Your task to perform on an android device: What's on my calendar today? Image 0: 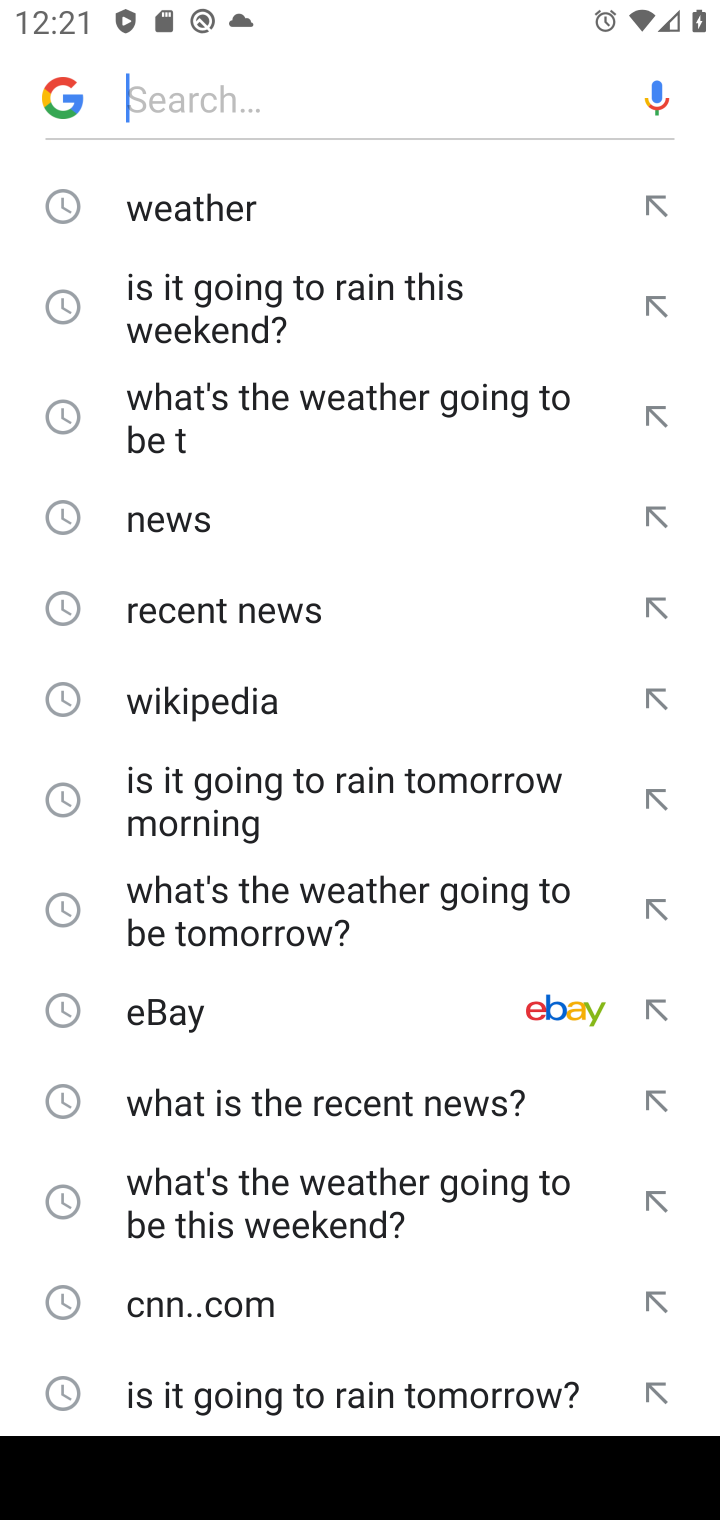
Step 0: press home button
Your task to perform on an android device: What's on my calendar today? Image 1: 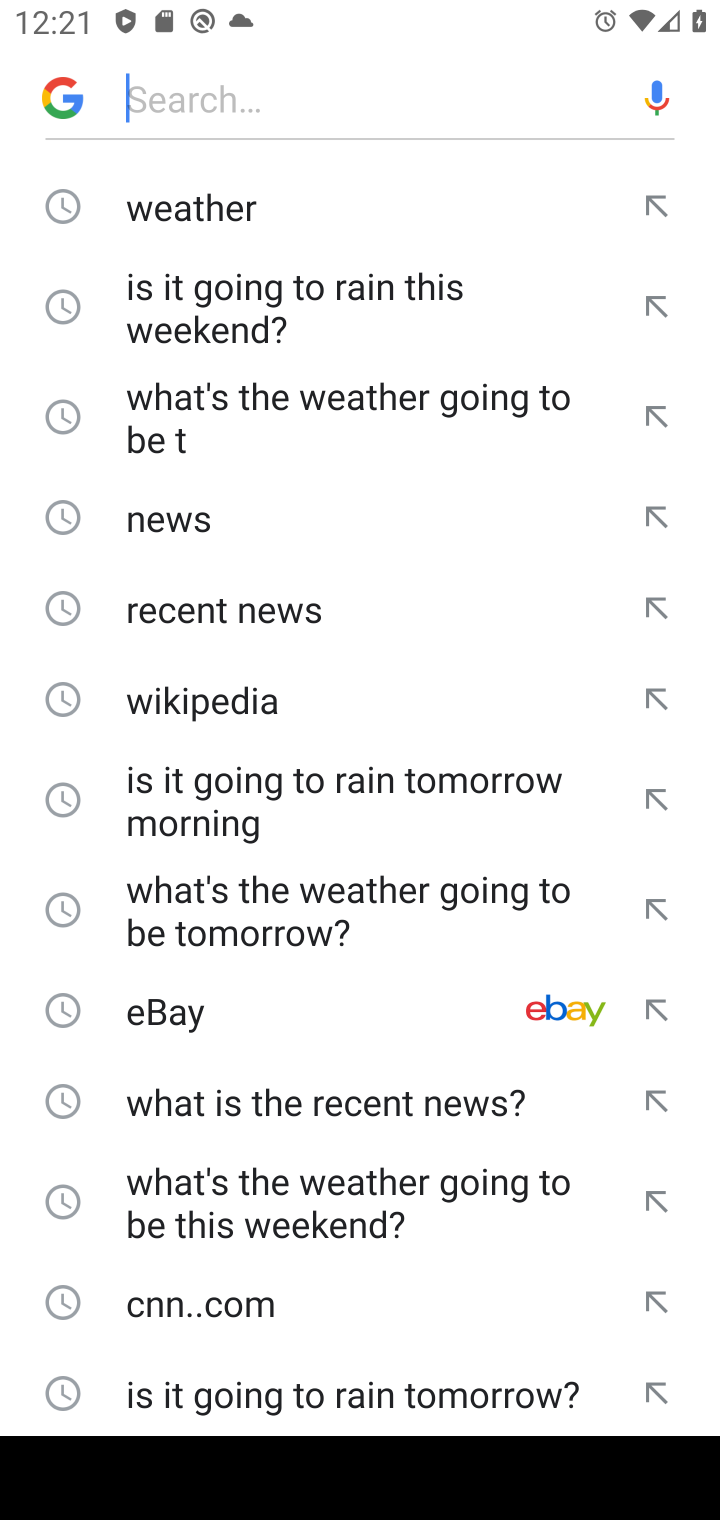
Step 1: press home button
Your task to perform on an android device: What's on my calendar today? Image 2: 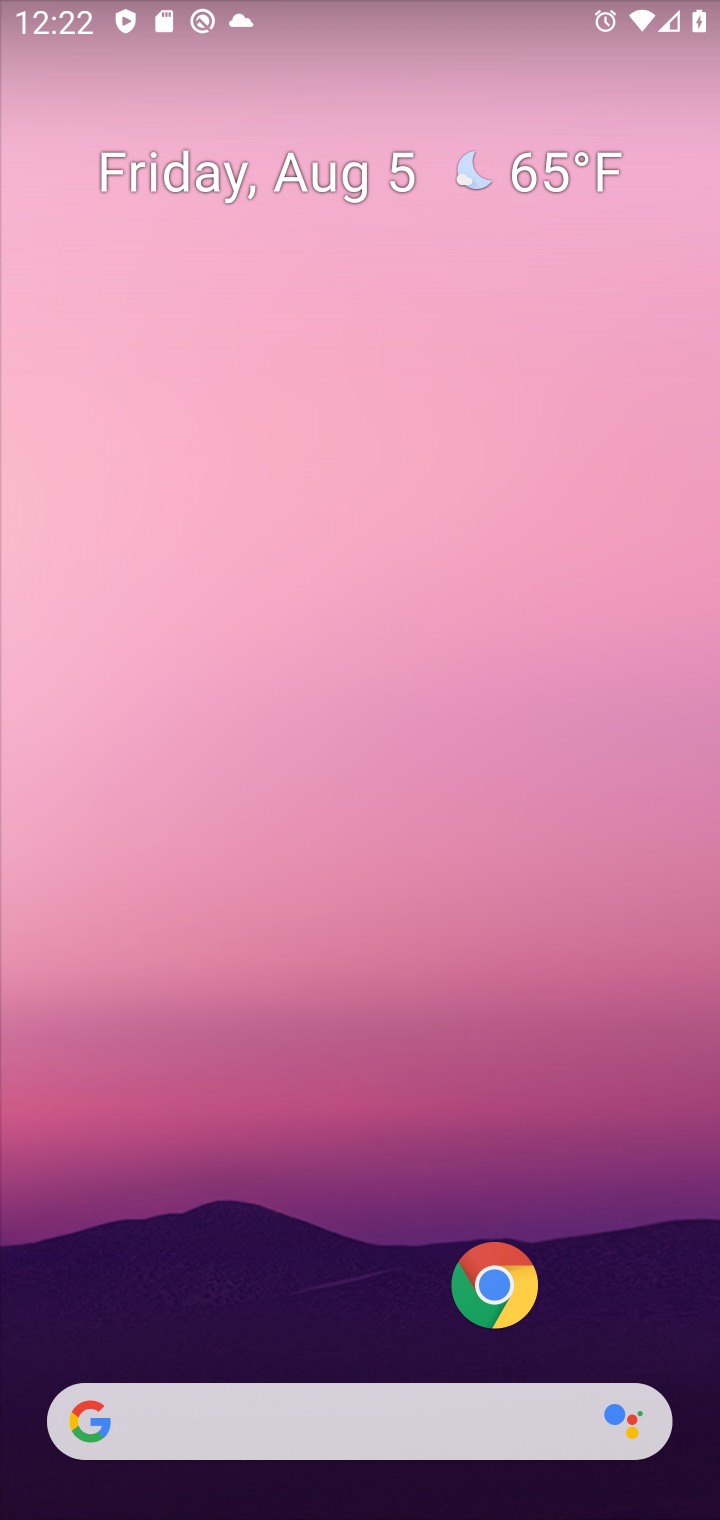
Step 2: drag from (414, 1206) to (557, 152)
Your task to perform on an android device: What's on my calendar today? Image 3: 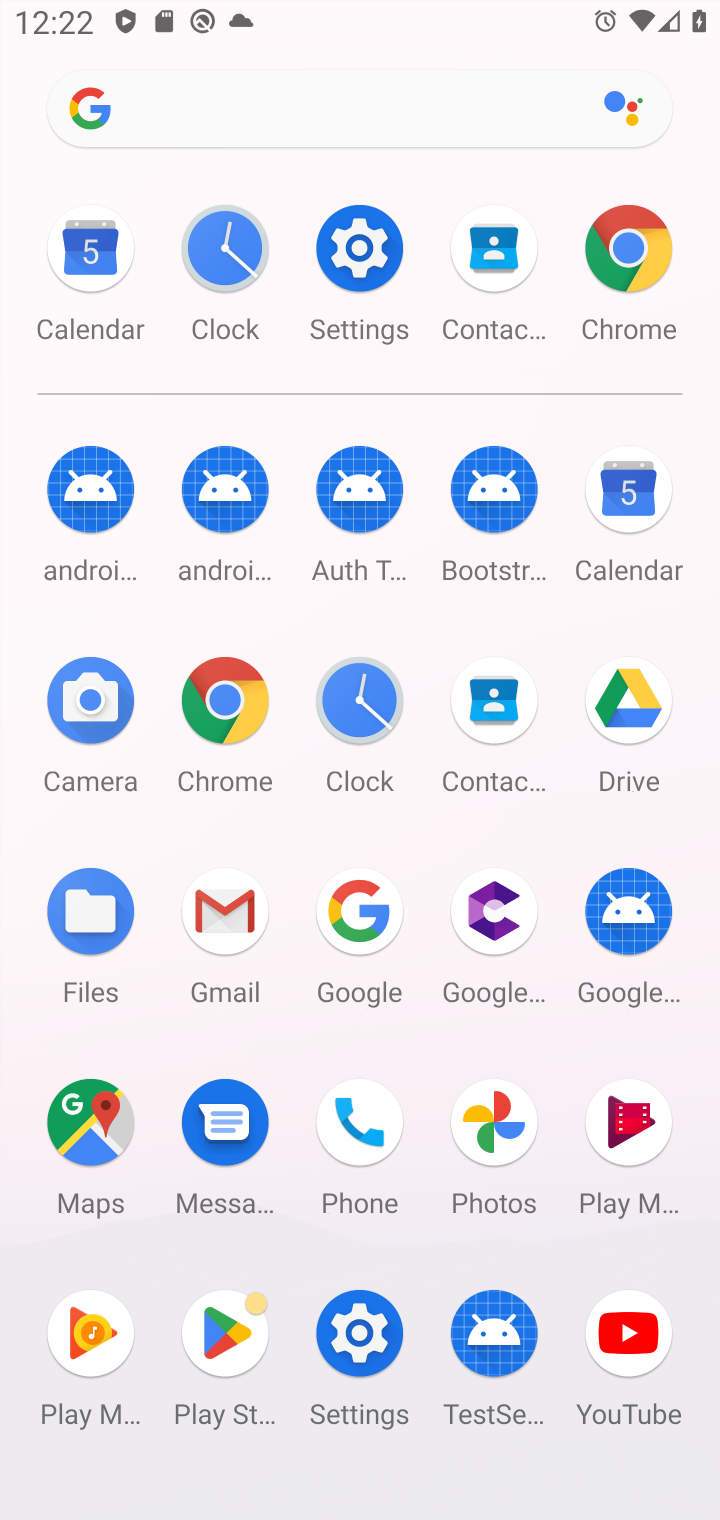
Step 3: click (654, 503)
Your task to perform on an android device: What's on my calendar today? Image 4: 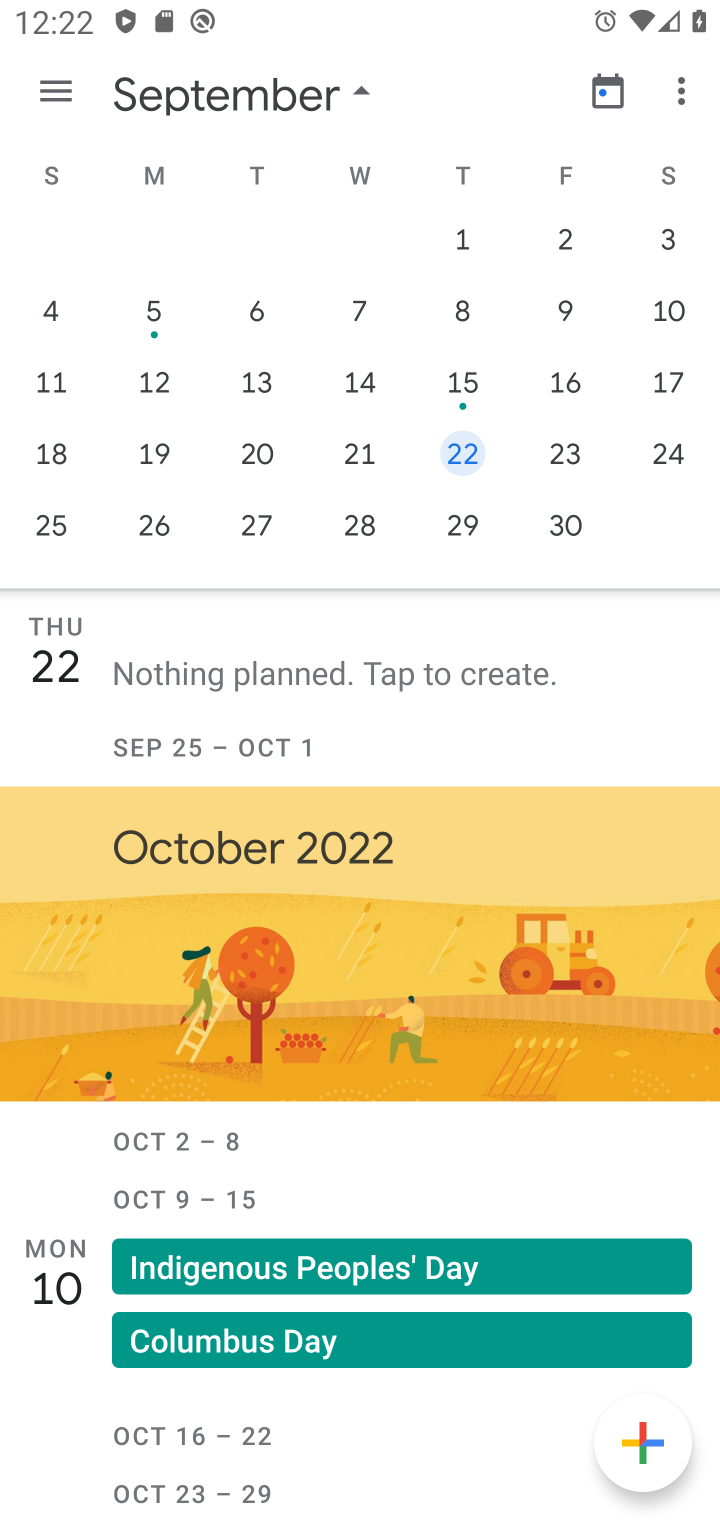
Step 4: drag from (69, 455) to (378, 566)
Your task to perform on an android device: What's on my calendar today? Image 5: 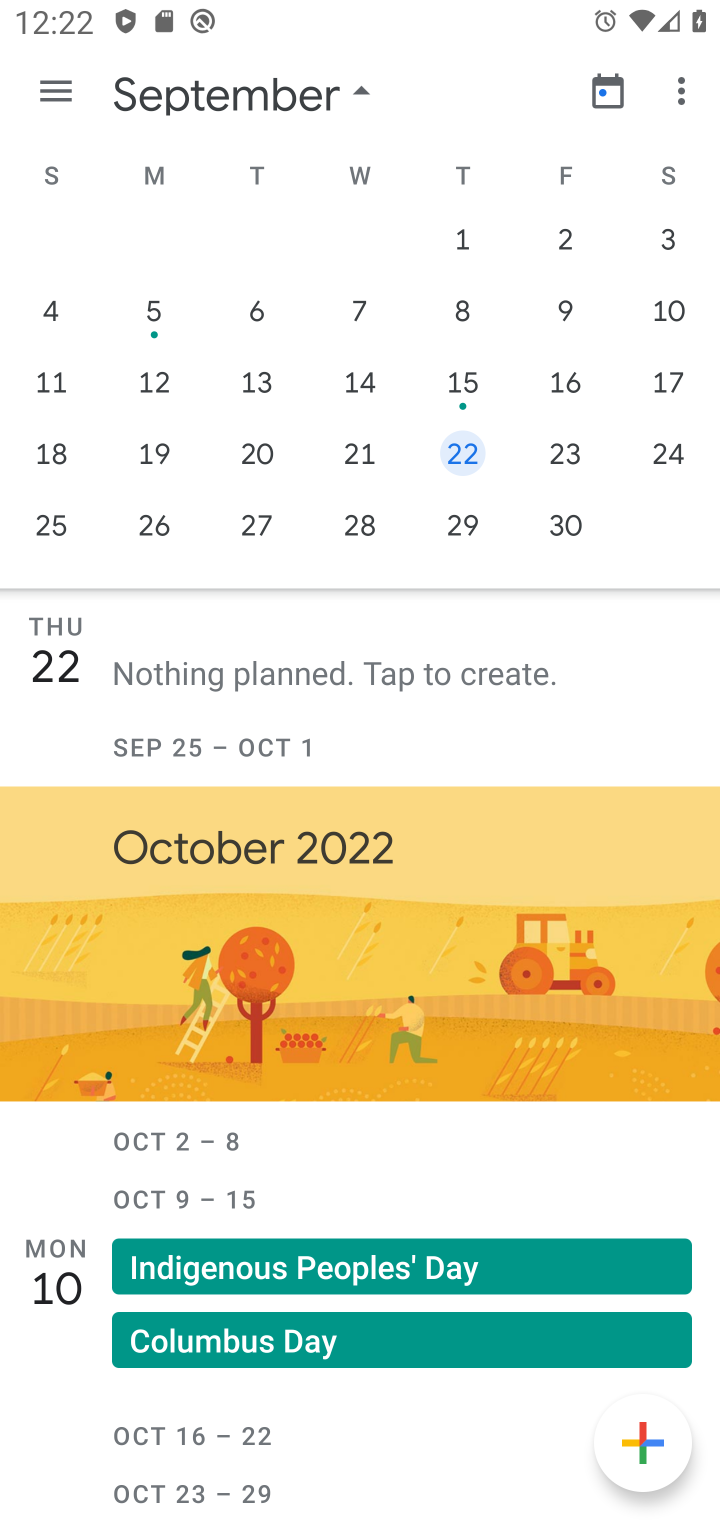
Step 5: drag from (37, 408) to (683, 735)
Your task to perform on an android device: What's on my calendar today? Image 6: 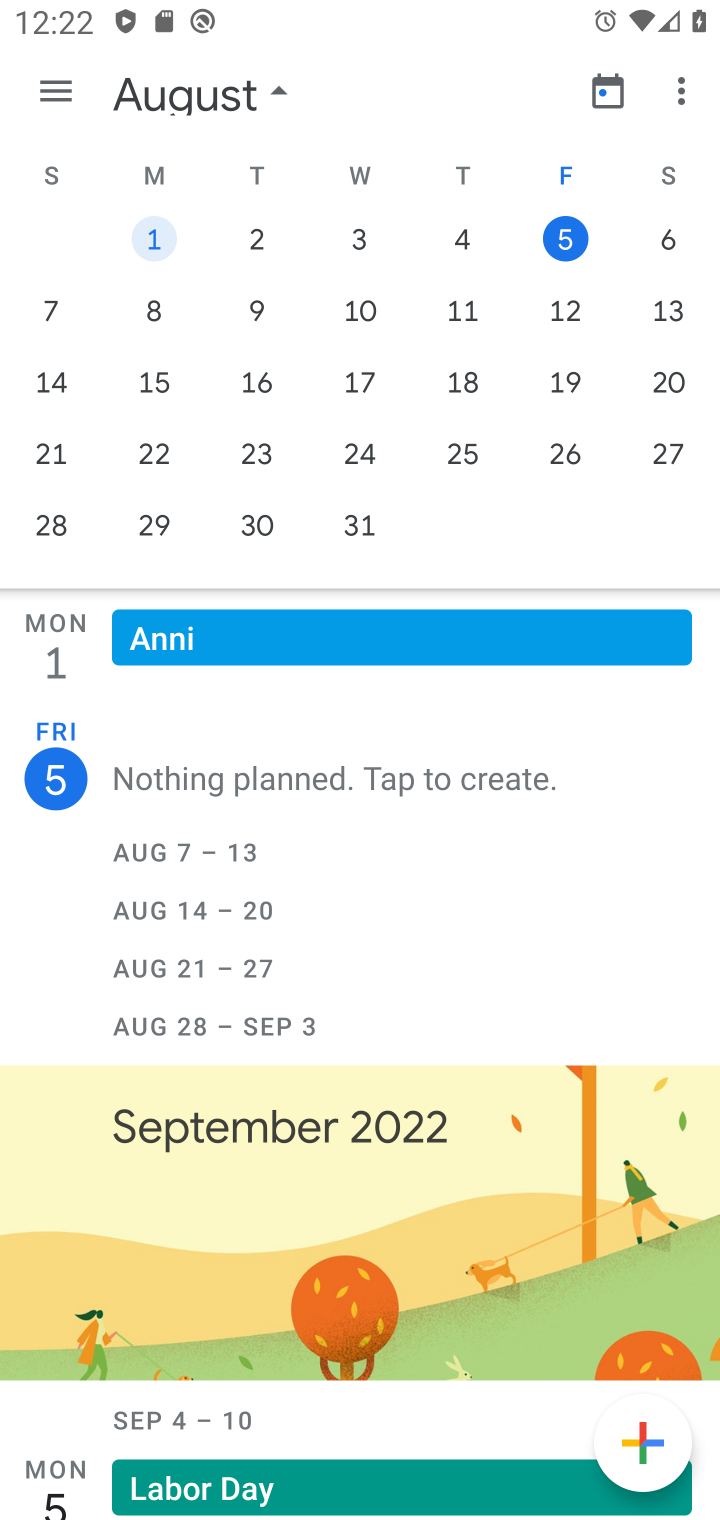
Step 6: click (551, 259)
Your task to perform on an android device: What's on my calendar today? Image 7: 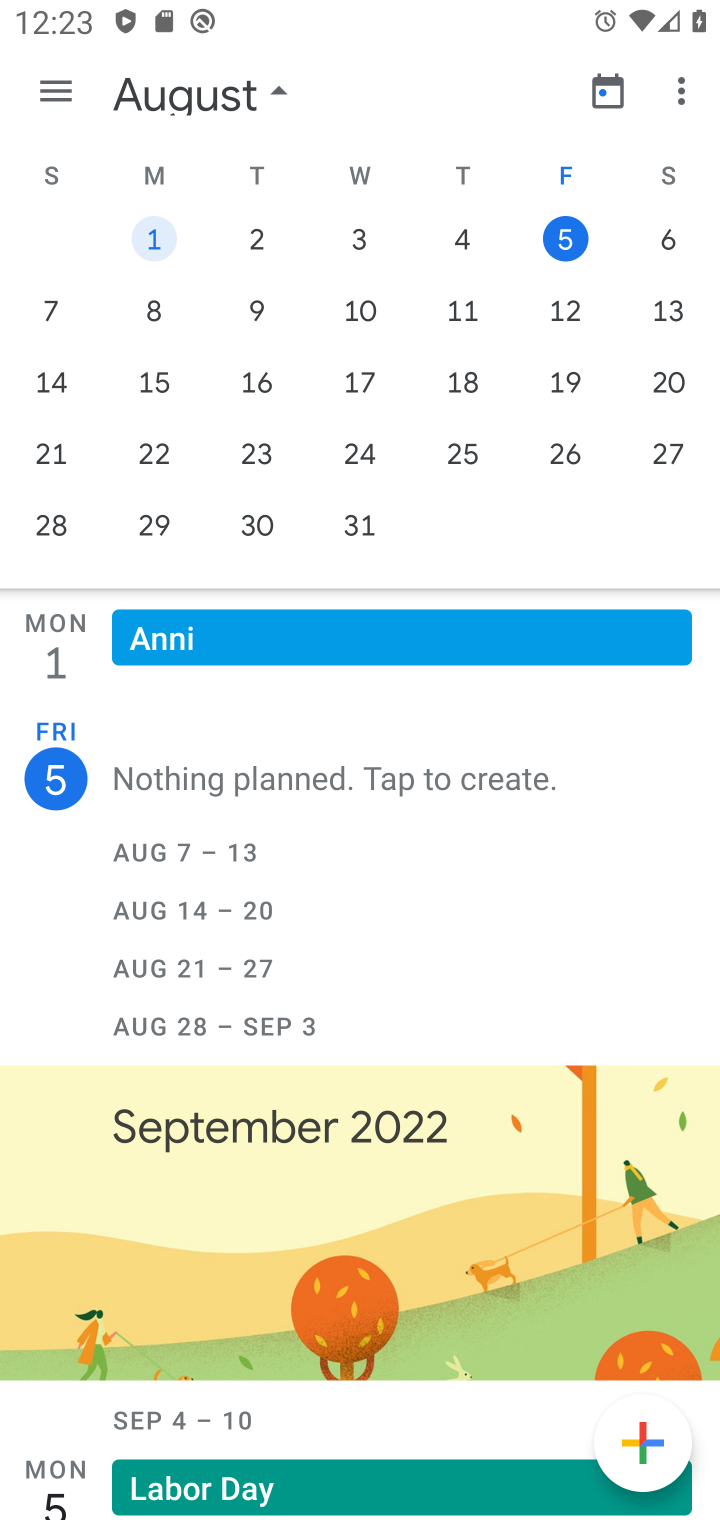
Step 7: task complete